Your task to perform on an android device: toggle priority inbox in the gmail app Image 0: 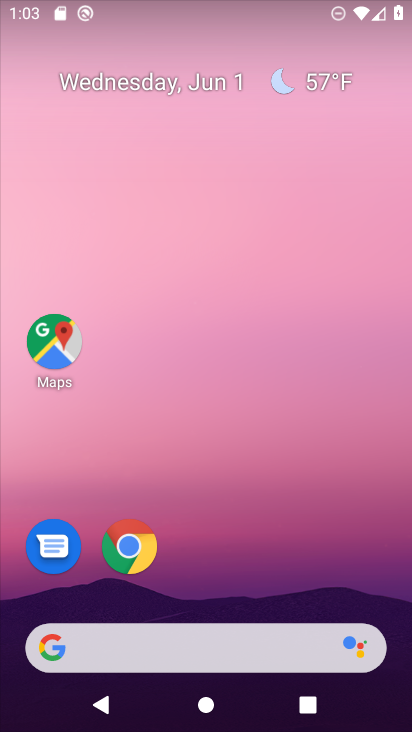
Step 0: drag from (180, 607) to (165, 24)
Your task to perform on an android device: toggle priority inbox in the gmail app Image 1: 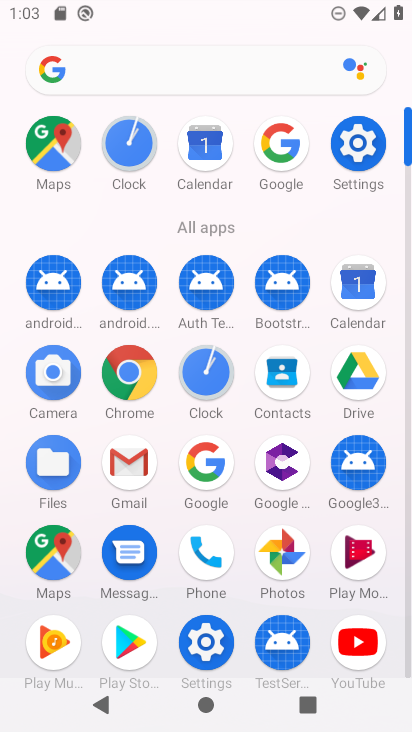
Step 1: click (138, 463)
Your task to perform on an android device: toggle priority inbox in the gmail app Image 2: 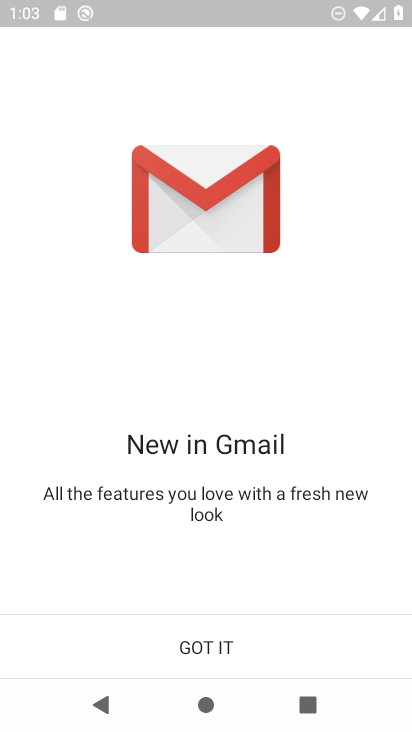
Step 2: click (183, 639)
Your task to perform on an android device: toggle priority inbox in the gmail app Image 3: 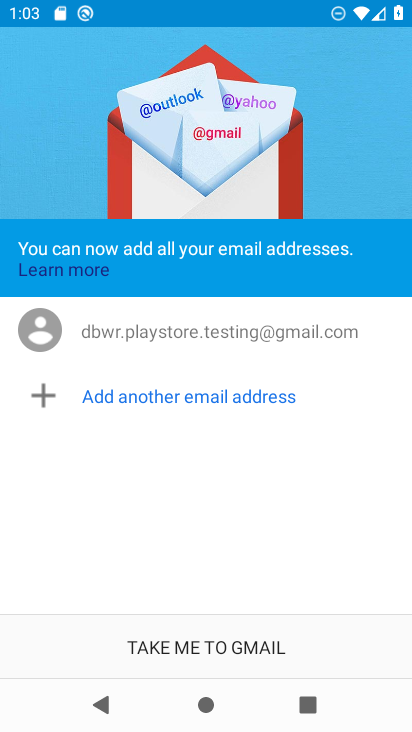
Step 3: click (232, 647)
Your task to perform on an android device: toggle priority inbox in the gmail app Image 4: 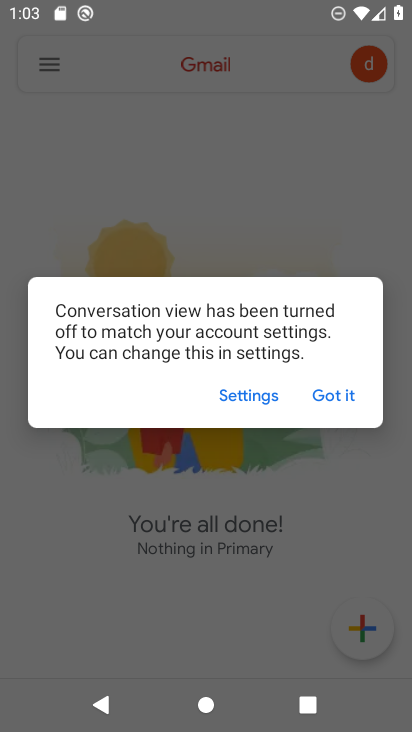
Step 4: click (315, 392)
Your task to perform on an android device: toggle priority inbox in the gmail app Image 5: 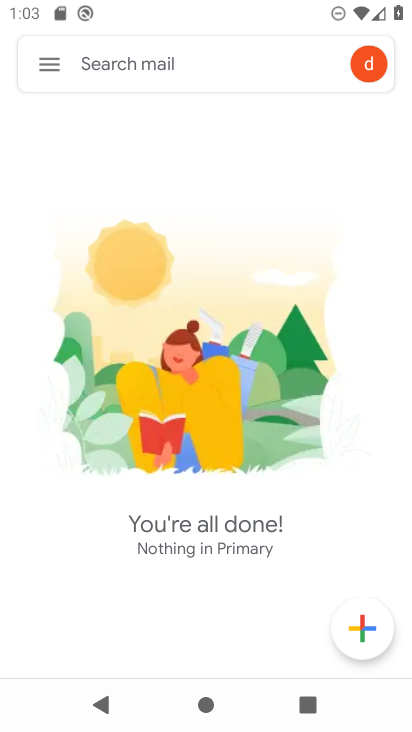
Step 5: click (58, 63)
Your task to perform on an android device: toggle priority inbox in the gmail app Image 6: 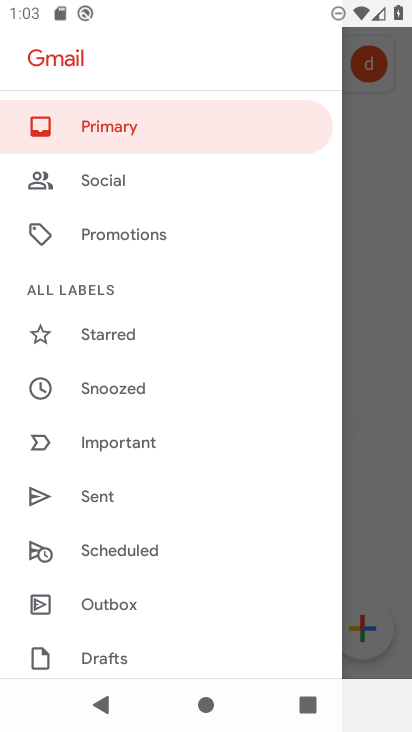
Step 6: drag from (115, 569) to (98, 41)
Your task to perform on an android device: toggle priority inbox in the gmail app Image 7: 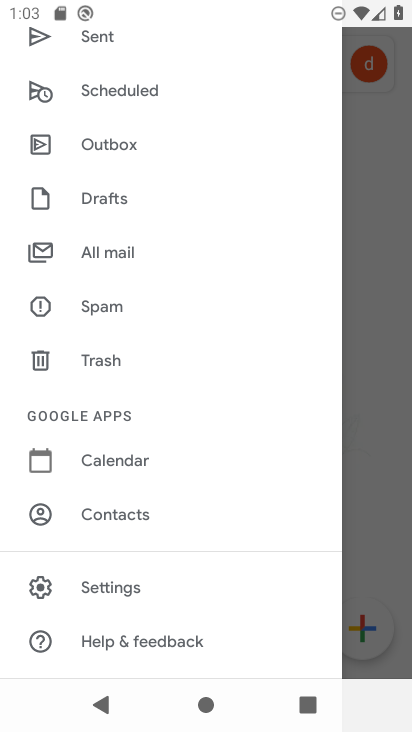
Step 7: click (98, 581)
Your task to perform on an android device: toggle priority inbox in the gmail app Image 8: 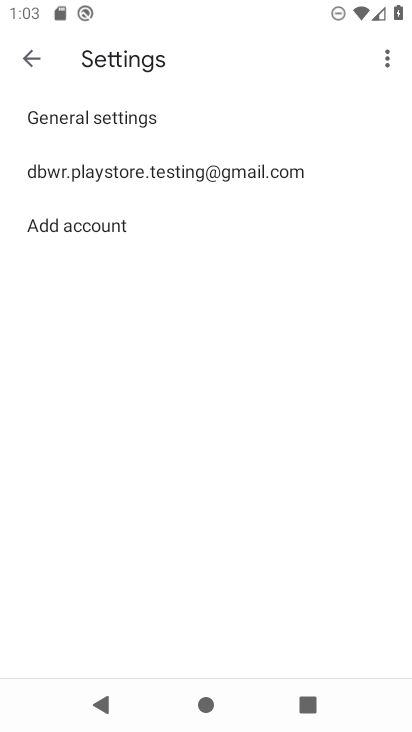
Step 8: click (151, 173)
Your task to perform on an android device: toggle priority inbox in the gmail app Image 9: 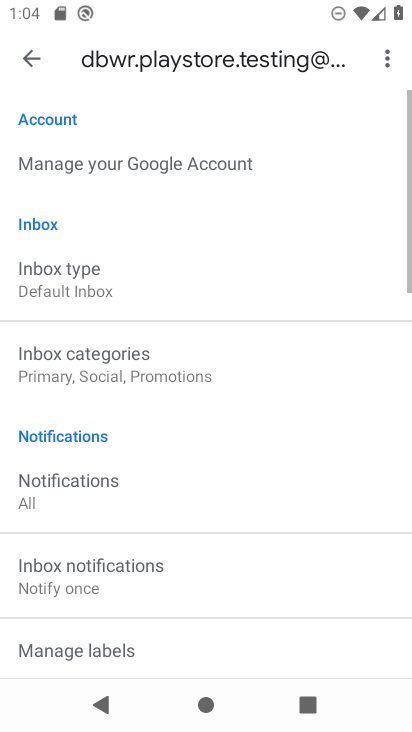
Step 9: click (105, 300)
Your task to perform on an android device: toggle priority inbox in the gmail app Image 10: 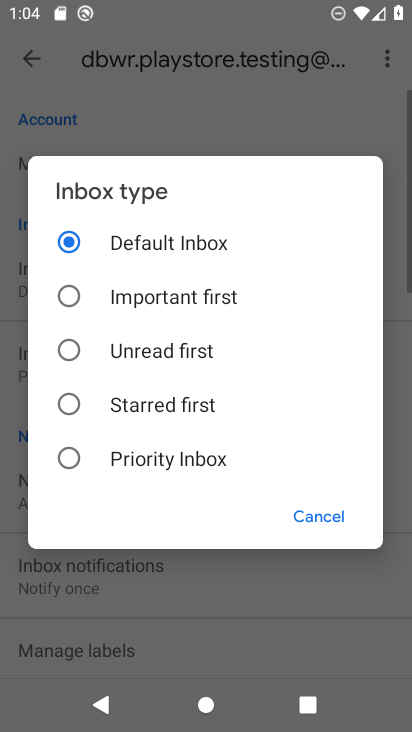
Step 10: click (158, 457)
Your task to perform on an android device: toggle priority inbox in the gmail app Image 11: 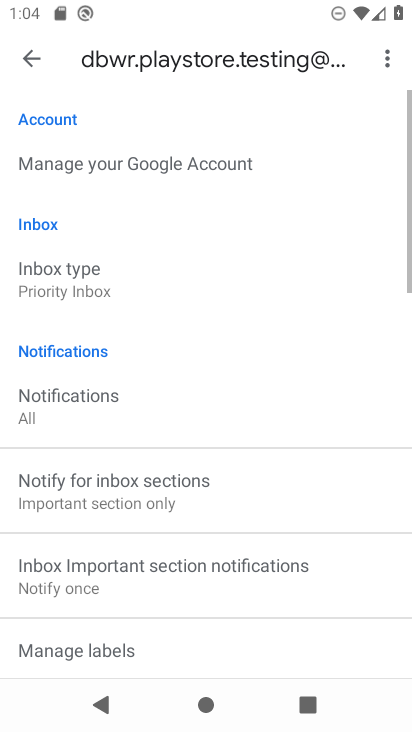
Step 11: task complete